Your task to perform on an android device: Search for "usb-c" on target.com, select the first entry, add it to the cart, then select checkout. Image 0: 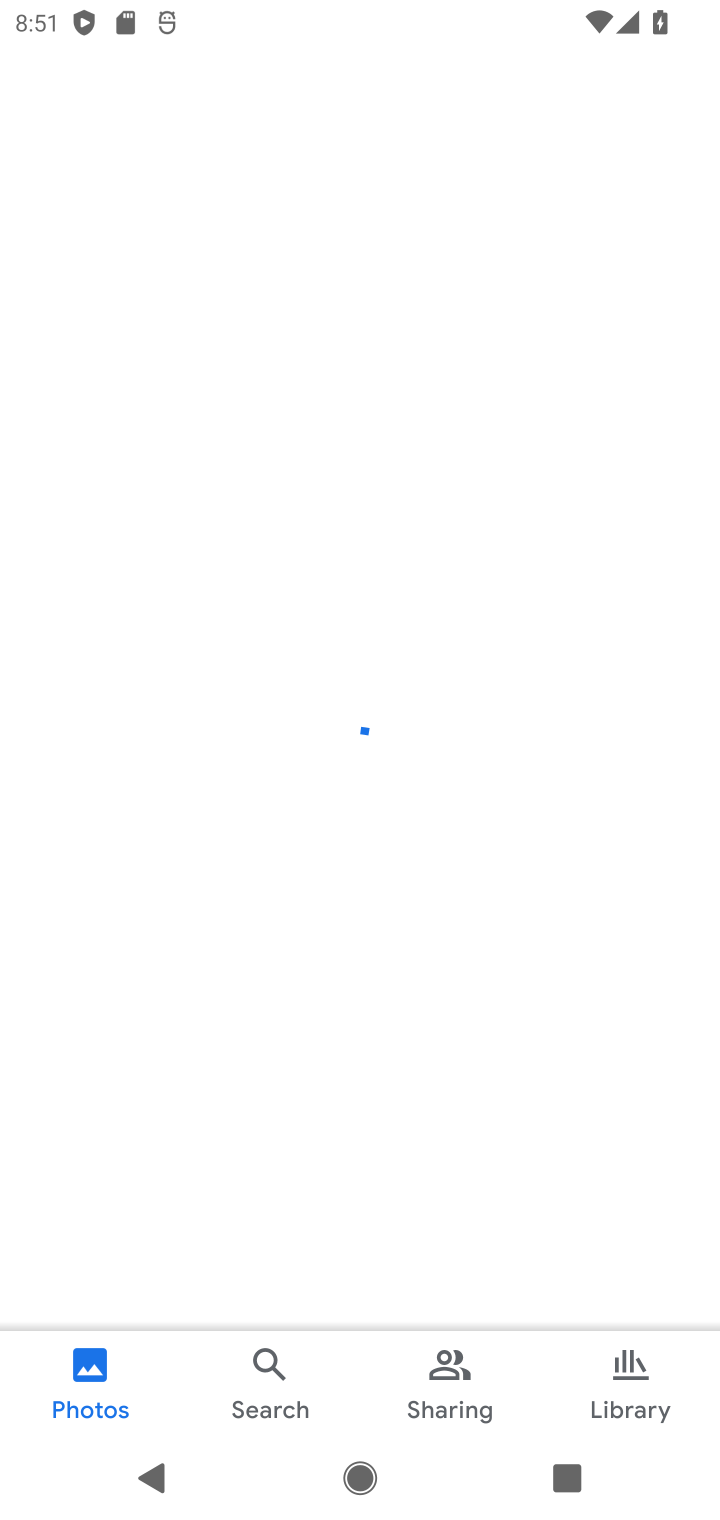
Step 0: press home button
Your task to perform on an android device: Search for "usb-c" on target.com, select the first entry, add it to the cart, then select checkout. Image 1: 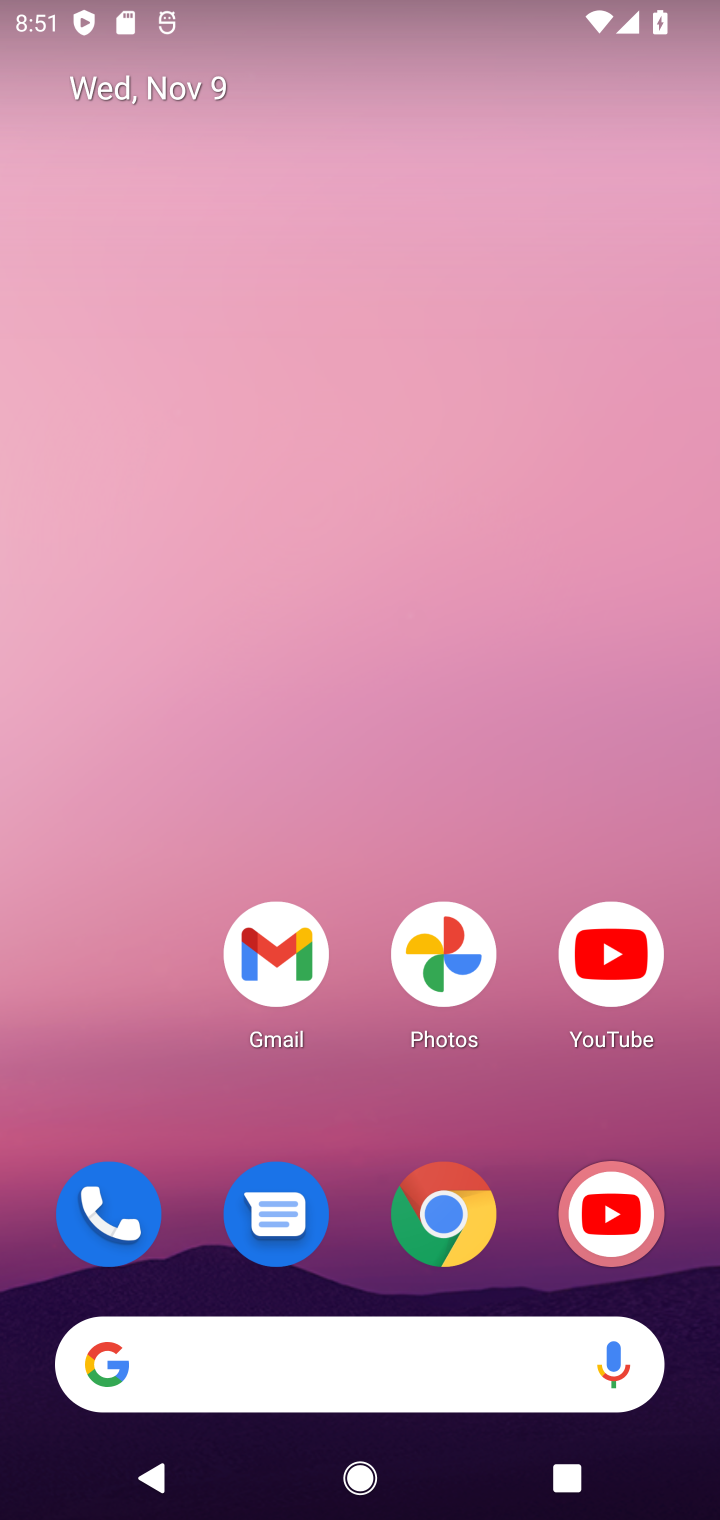
Step 1: click (359, 177)
Your task to perform on an android device: Search for "usb-c" on target.com, select the first entry, add it to the cart, then select checkout. Image 2: 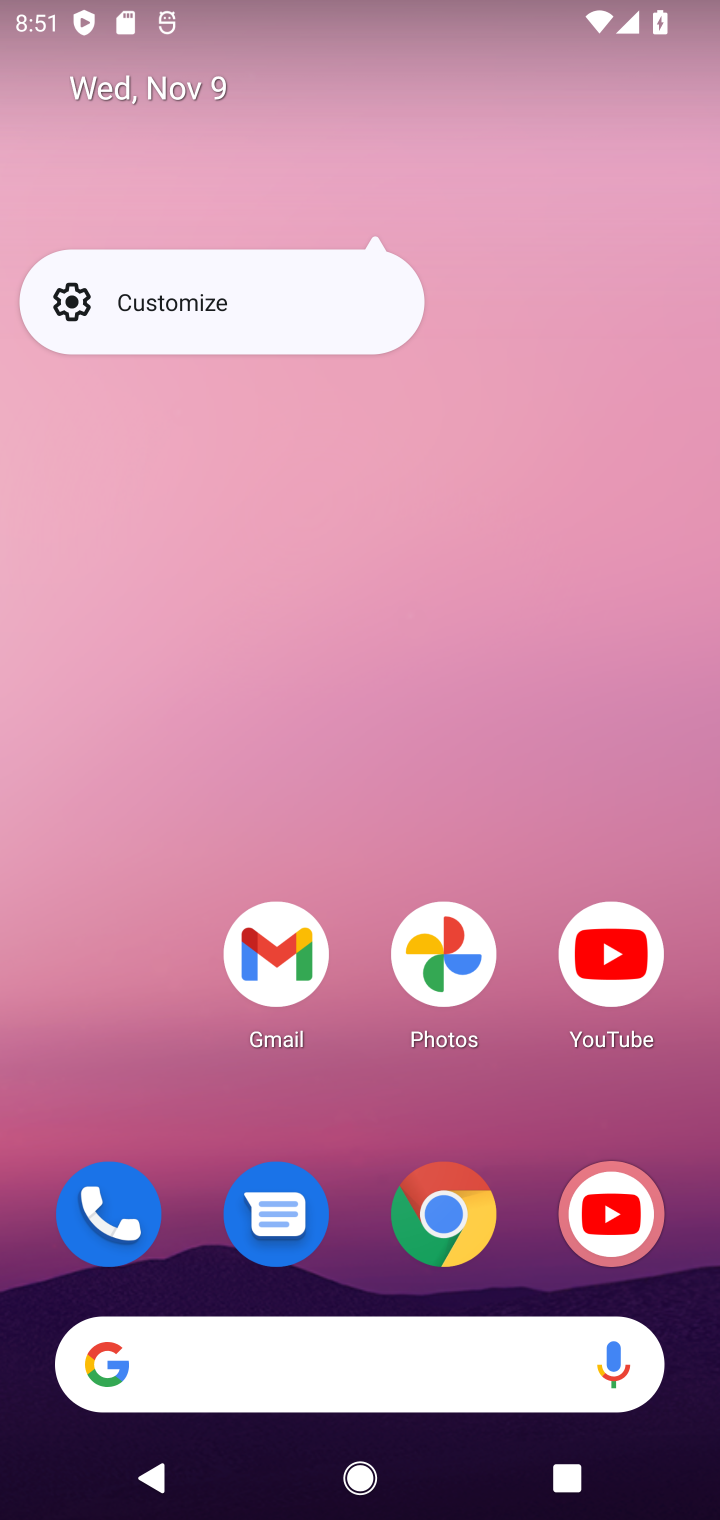
Step 2: drag from (361, 1256) to (434, 107)
Your task to perform on an android device: Search for "usb-c" on target.com, select the first entry, add it to the cart, then select checkout. Image 3: 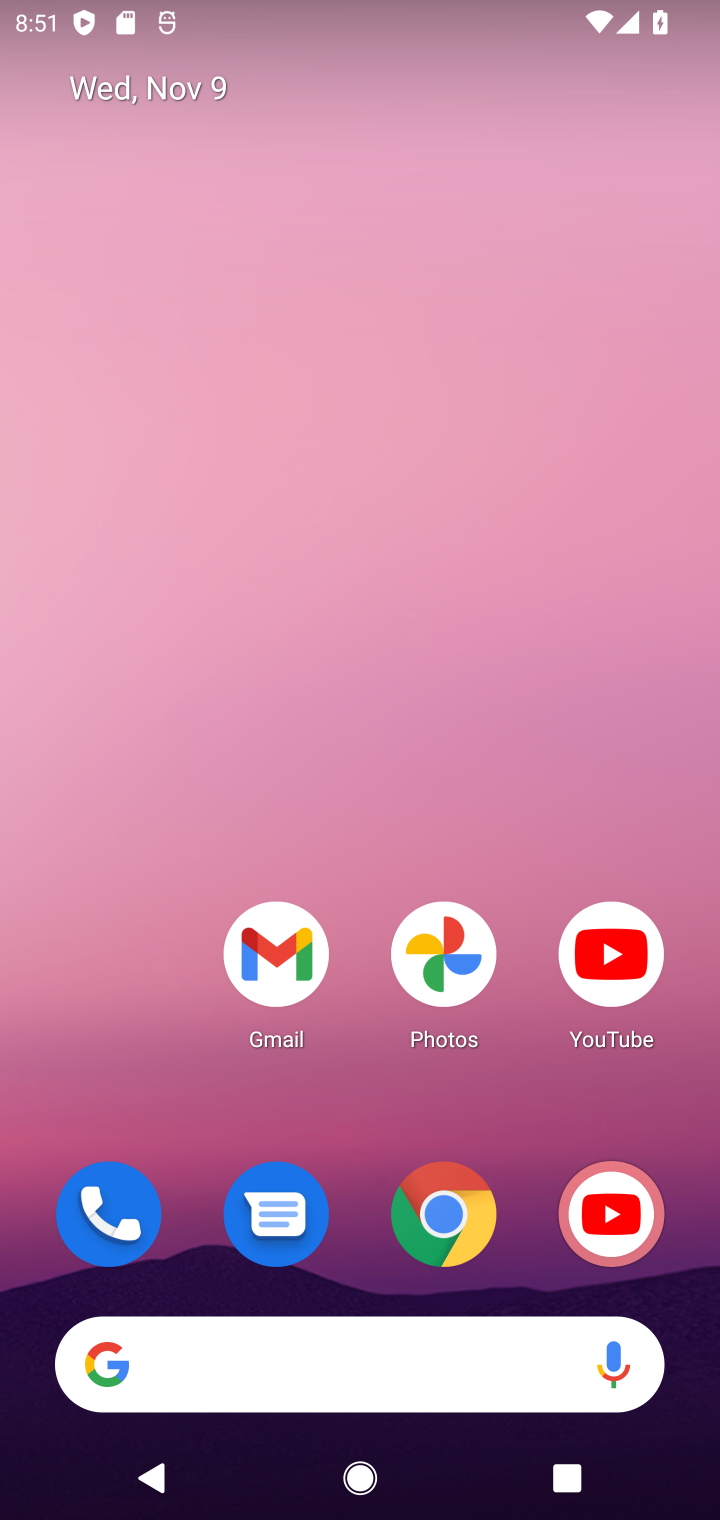
Step 3: drag from (353, 1207) to (378, 337)
Your task to perform on an android device: Search for "usb-c" on target.com, select the first entry, add it to the cart, then select checkout. Image 4: 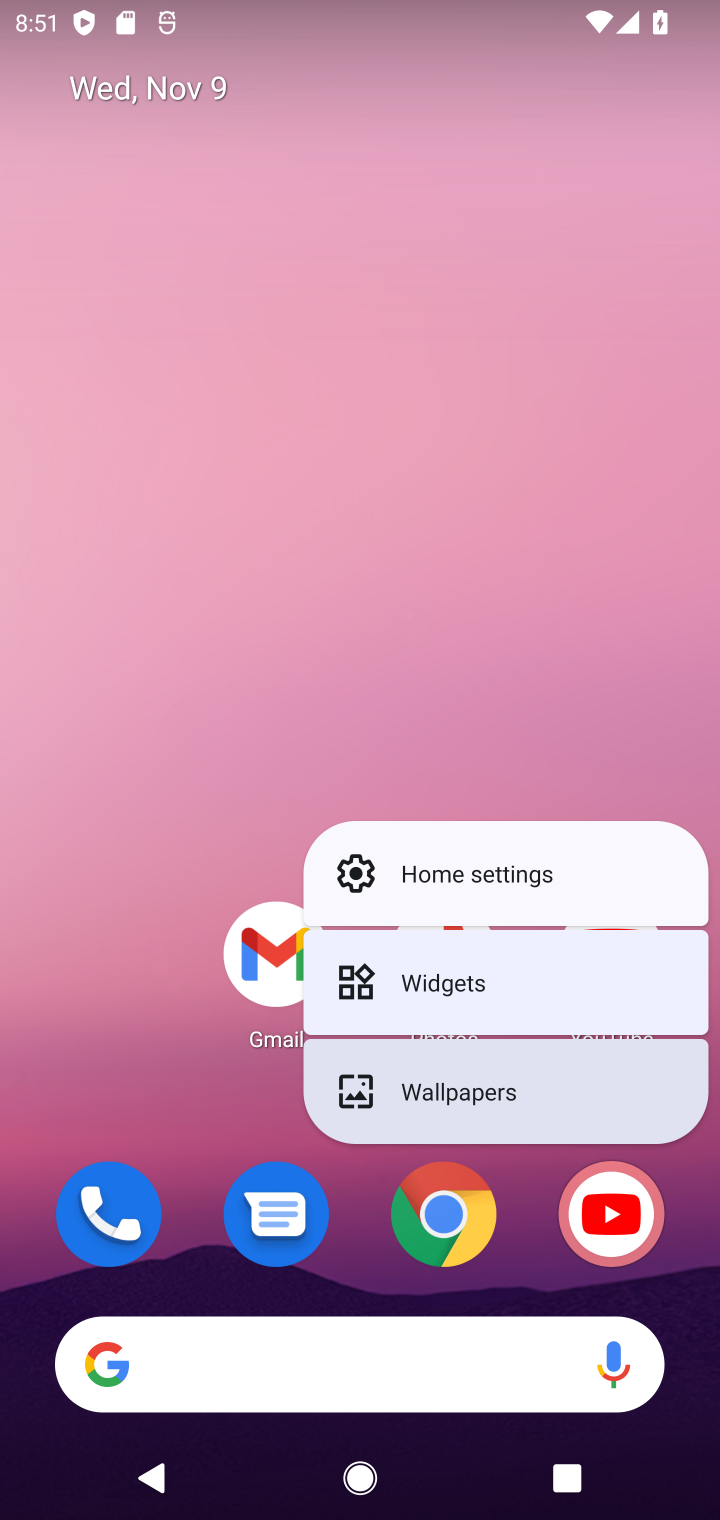
Step 4: click (337, 493)
Your task to perform on an android device: Search for "usb-c" on target.com, select the first entry, add it to the cart, then select checkout. Image 5: 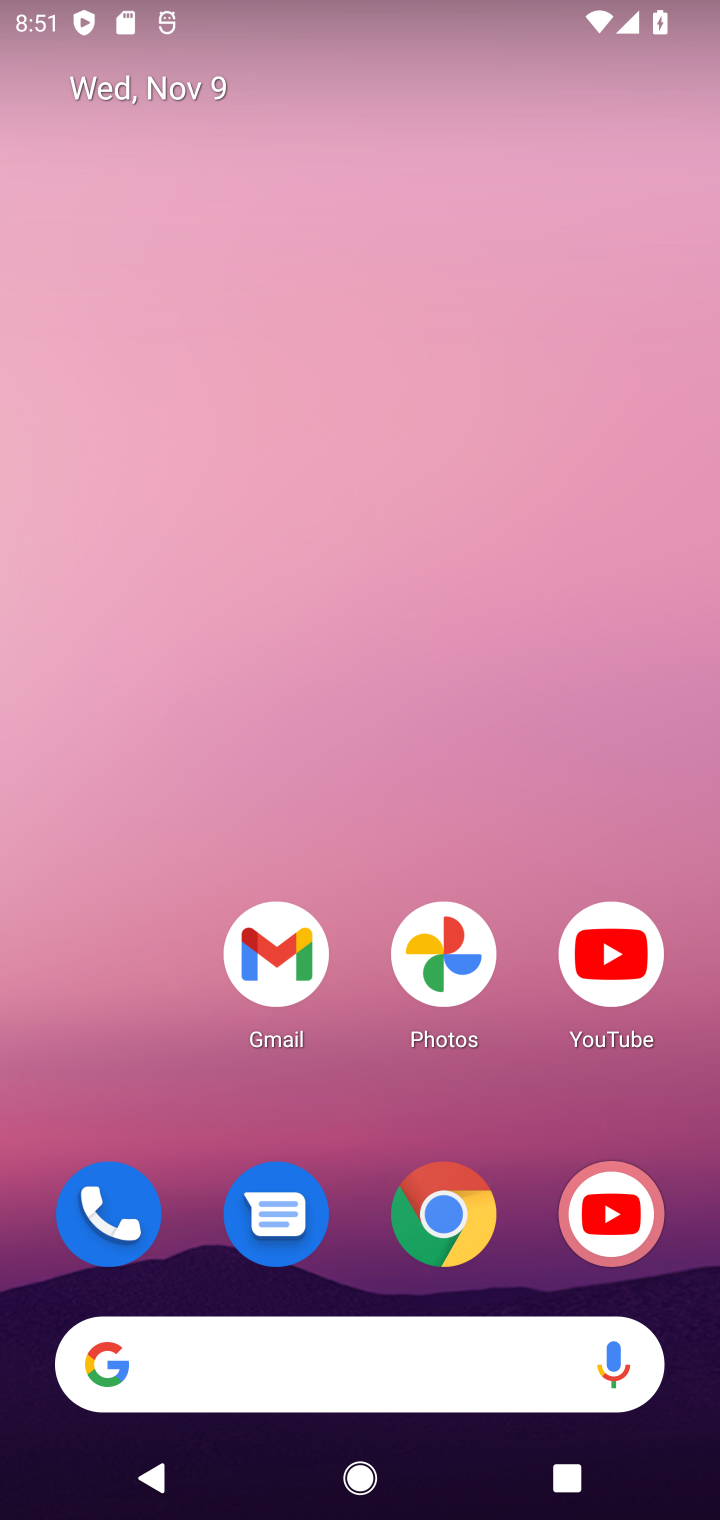
Step 5: drag from (337, 1187) to (382, 124)
Your task to perform on an android device: Search for "usb-c" on target.com, select the first entry, add it to the cart, then select checkout. Image 6: 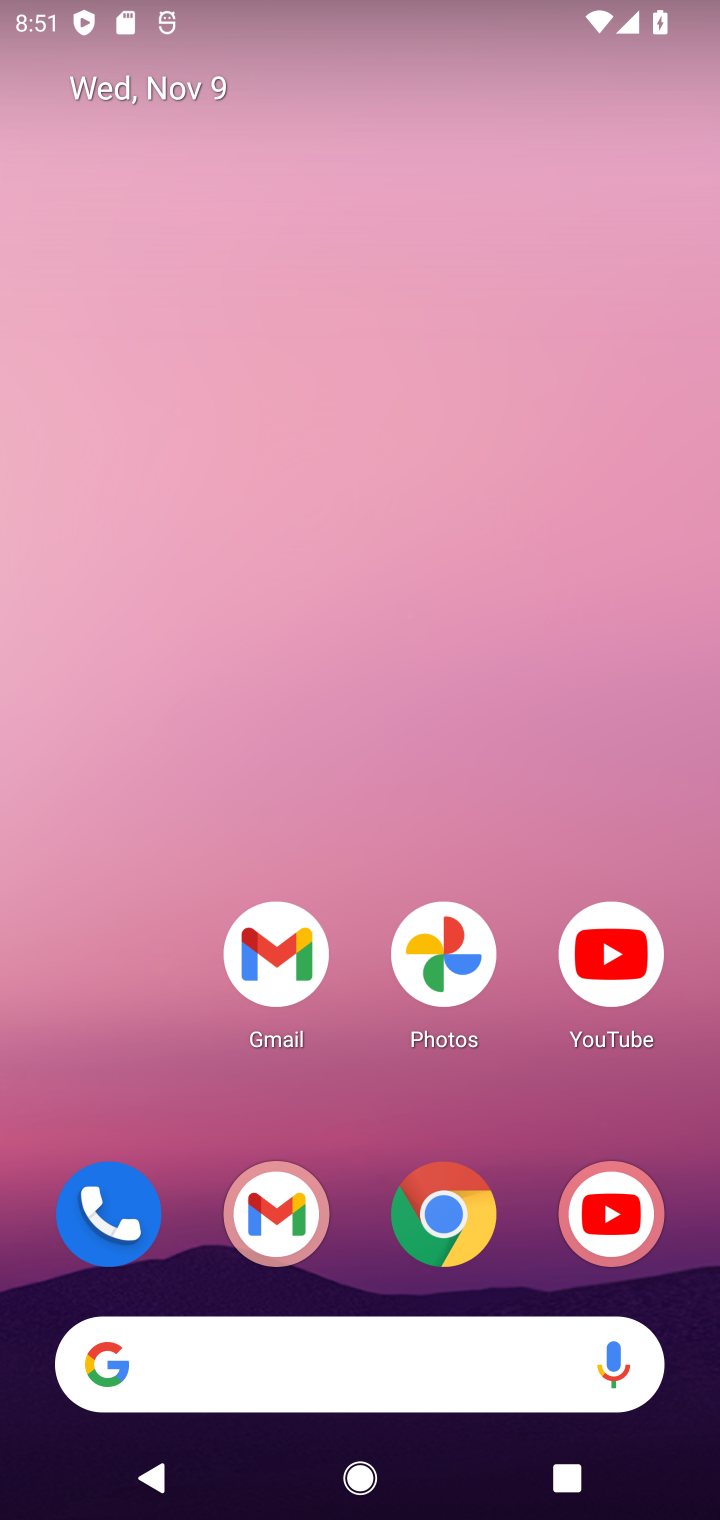
Step 6: drag from (385, 1202) to (349, 294)
Your task to perform on an android device: Search for "usb-c" on target.com, select the first entry, add it to the cart, then select checkout. Image 7: 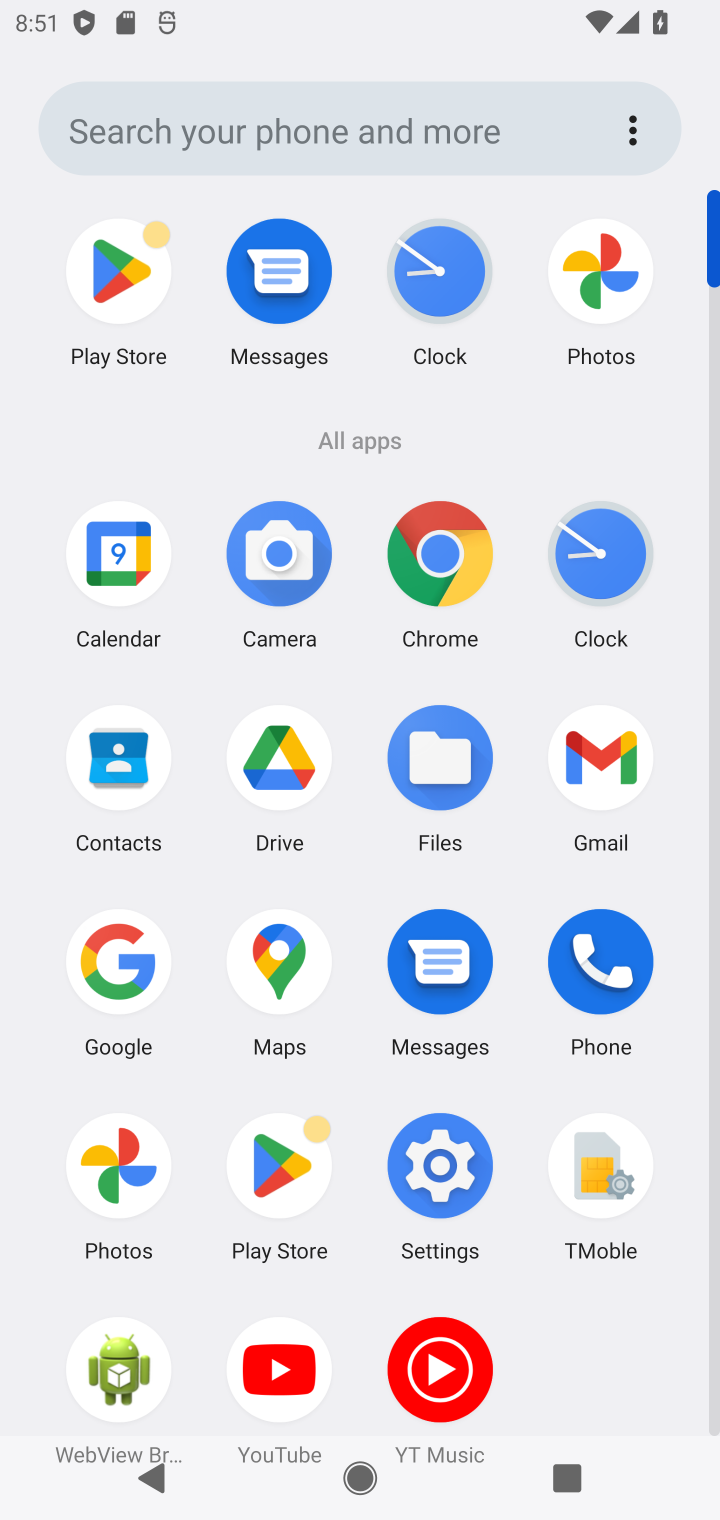
Step 7: click (444, 572)
Your task to perform on an android device: Search for "usb-c" on target.com, select the first entry, add it to the cart, then select checkout. Image 8: 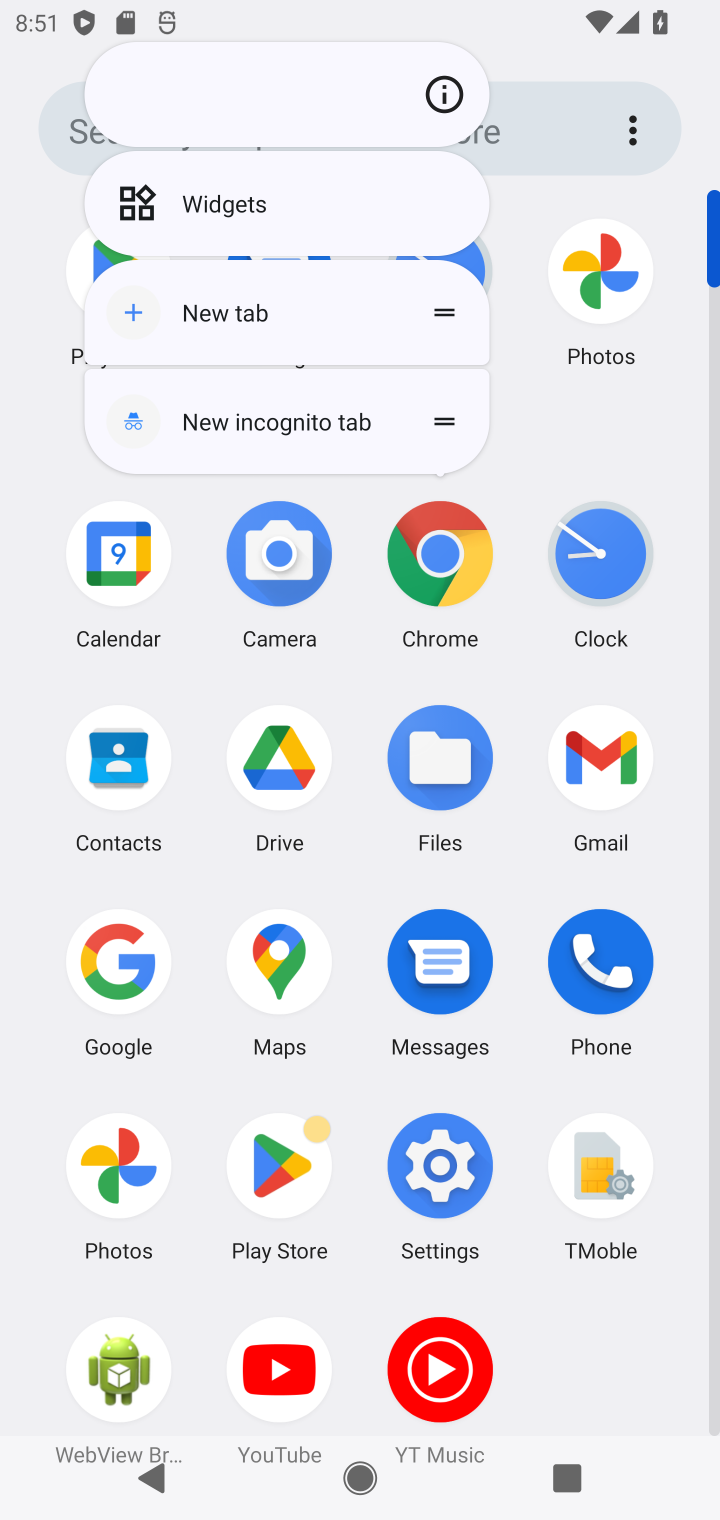
Step 8: click (436, 551)
Your task to perform on an android device: Search for "usb-c" on target.com, select the first entry, add it to the cart, then select checkout. Image 9: 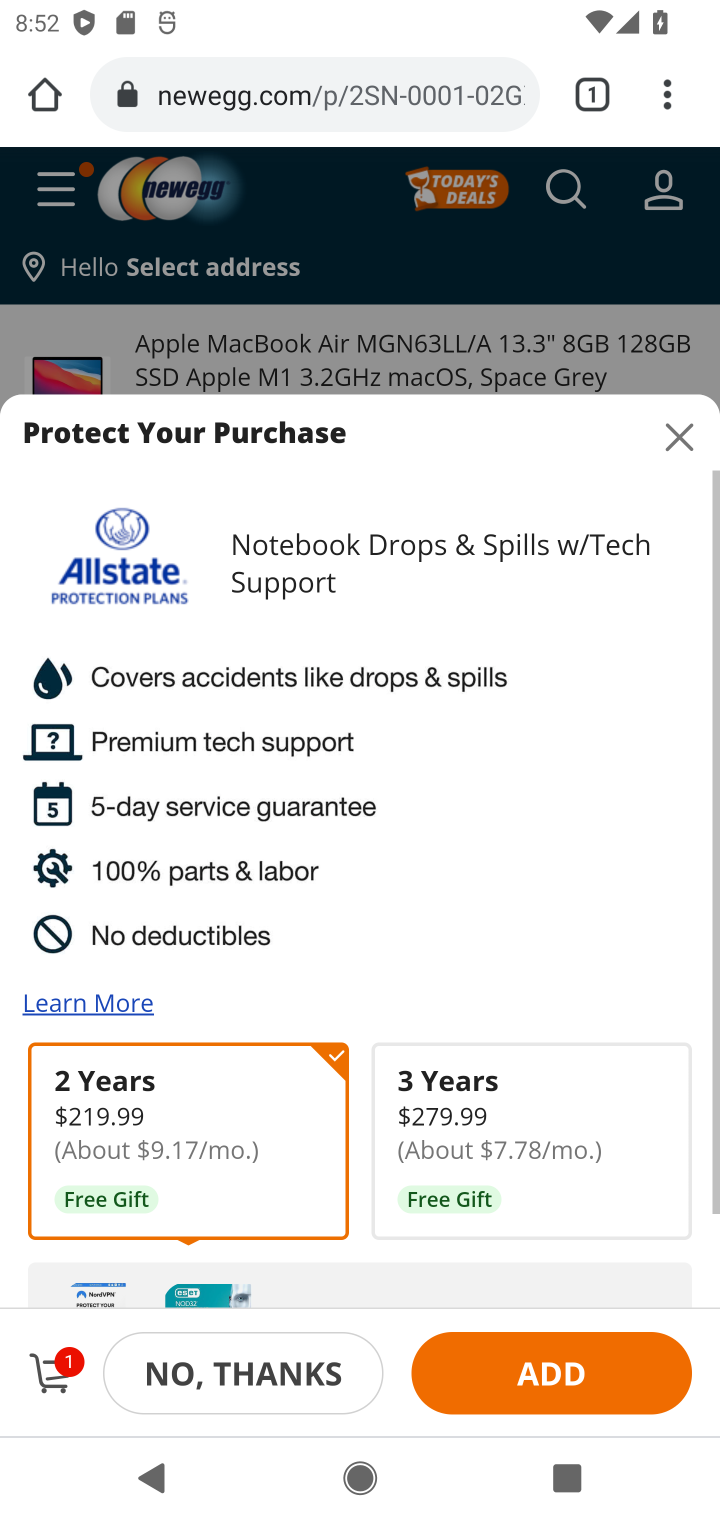
Step 9: click (332, 100)
Your task to perform on an android device: Search for "usb-c" on target.com, select the first entry, add it to the cart, then select checkout. Image 10: 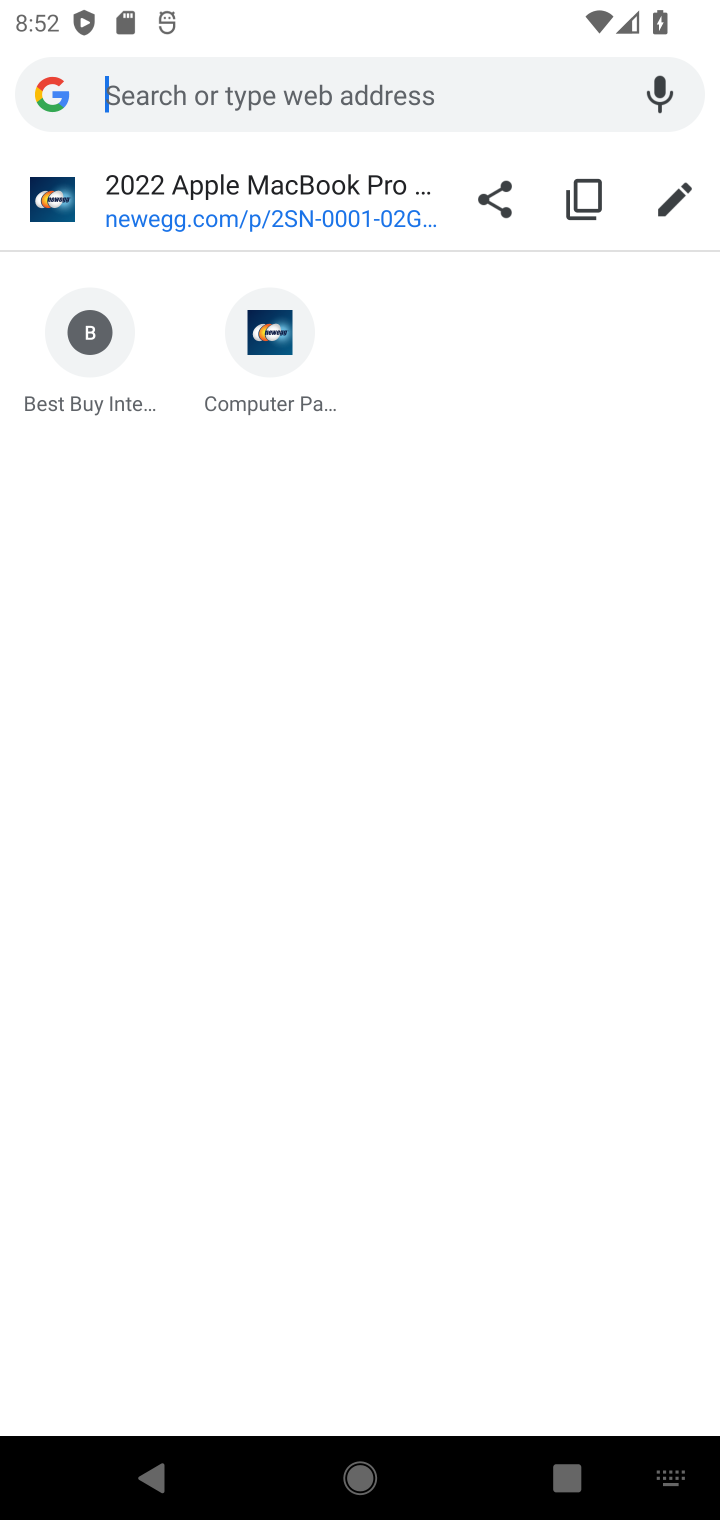
Step 10: type "target.com"
Your task to perform on an android device: Search for "usb-c" on target.com, select the first entry, add it to the cart, then select checkout. Image 11: 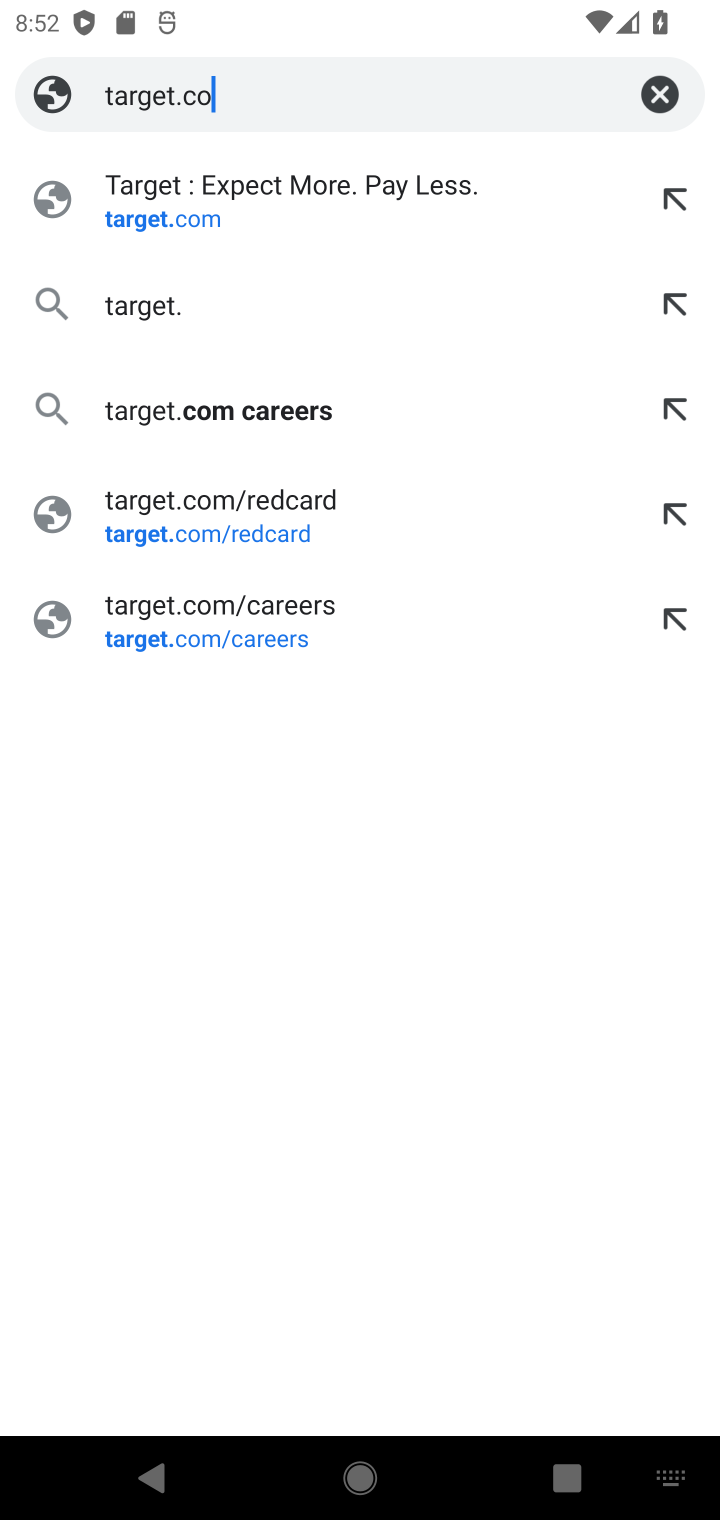
Step 11: press enter
Your task to perform on an android device: Search for "usb-c" on target.com, select the first entry, add it to the cart, then select checkout. Image 12: 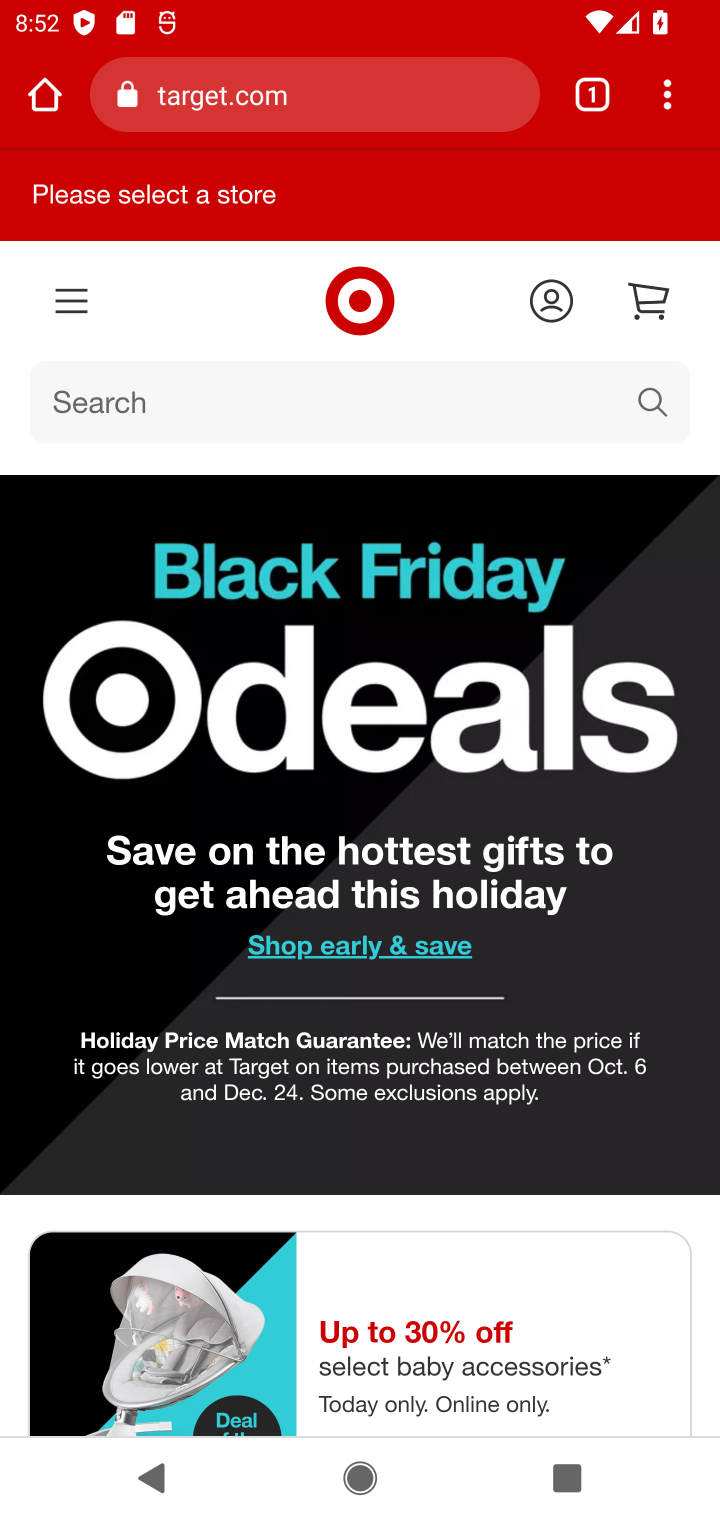
Step 12: click (325, 399)
Your task to perform on an android device: Search for "usb-c" on target.com, select the first entry, add it to the cart, then select checkout. Image 13: 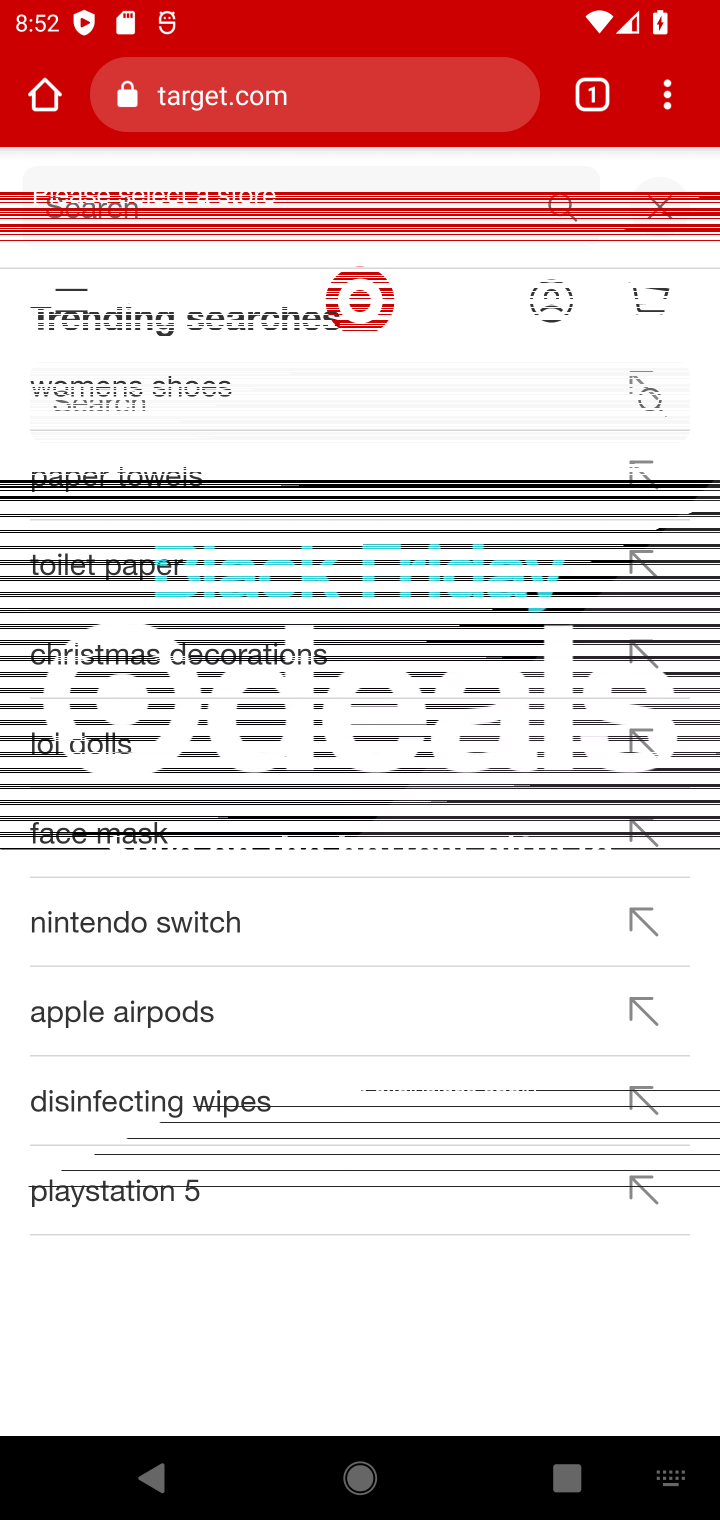
Step 13: type "usb-c"
Your task to perform on an android device: Search for "usb-c" on target.com, select the first entry, add it to the cart, then select checkout. Image 14: 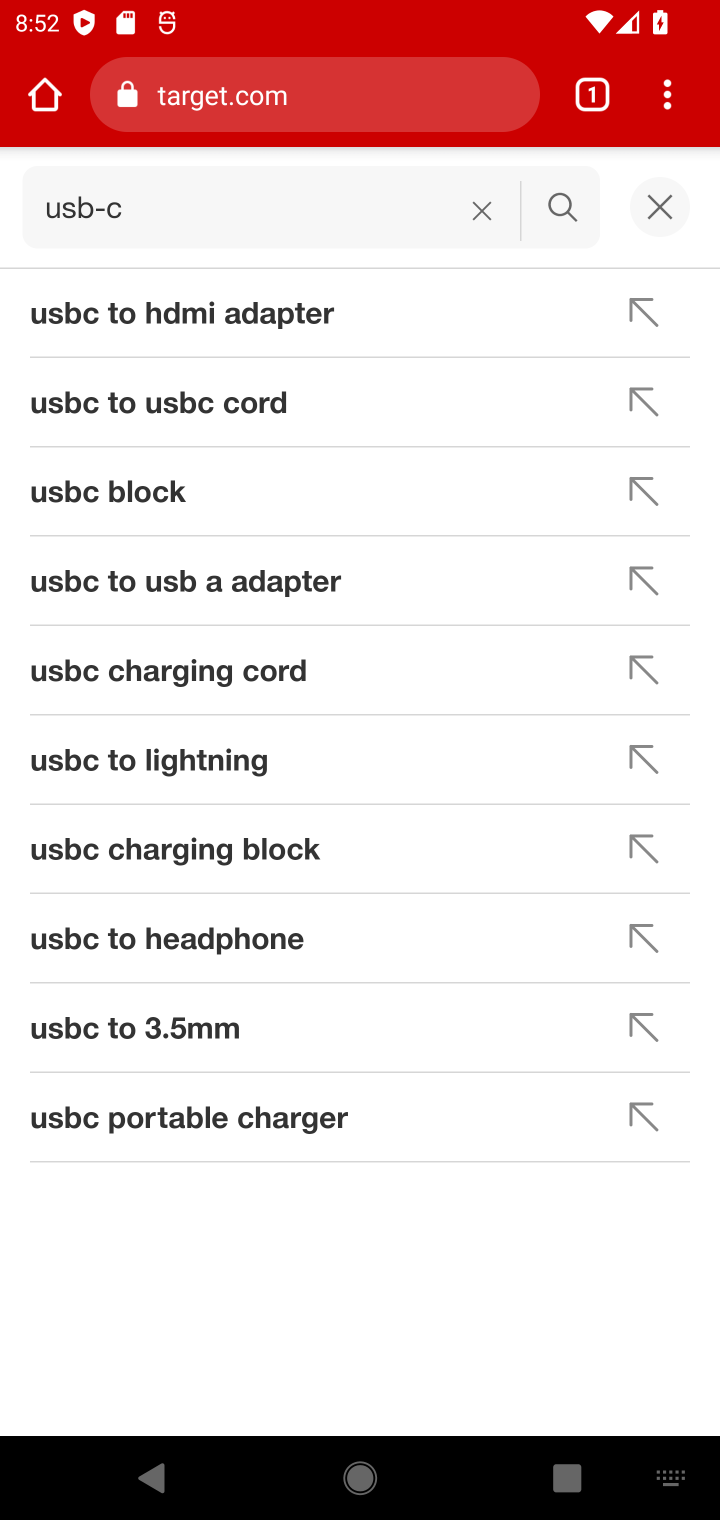
Step 14: press enter
Your task to perform on an android device: Search for "usb-c" on target.com, select the first entry, add it to the cart, then select checkout. Image 15: 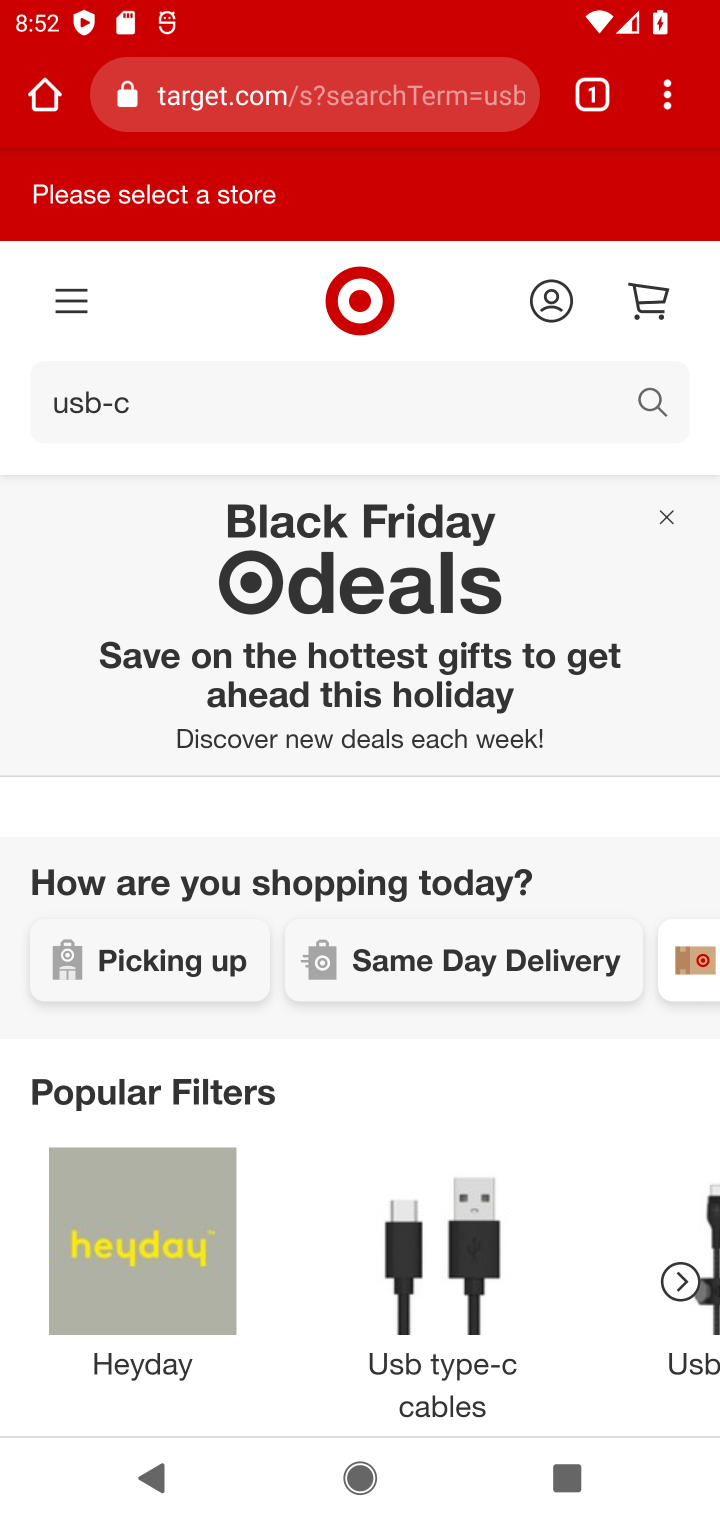
Step 15: drag from (333, 1038) to (390, 501)
Your task to perform on an android device: Search for "usb-c" on target.com, select the first entry, add it to the cart, then select checkout. Image 16: 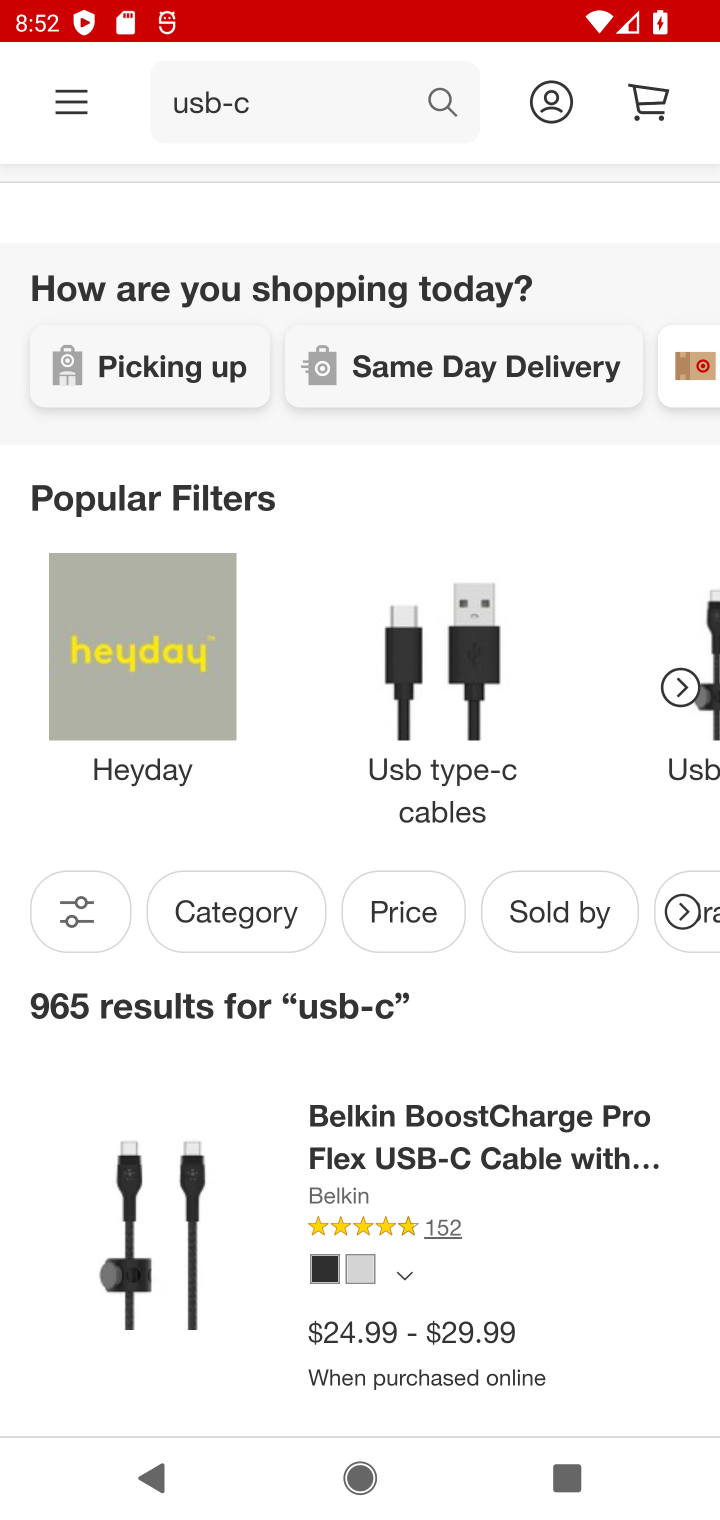
Step 16: click (460, 1164)
Your task to perform on an android device: Search for "usb-c" on target.com, select the first entry, add it to the cart, then select checkout. Image 17: 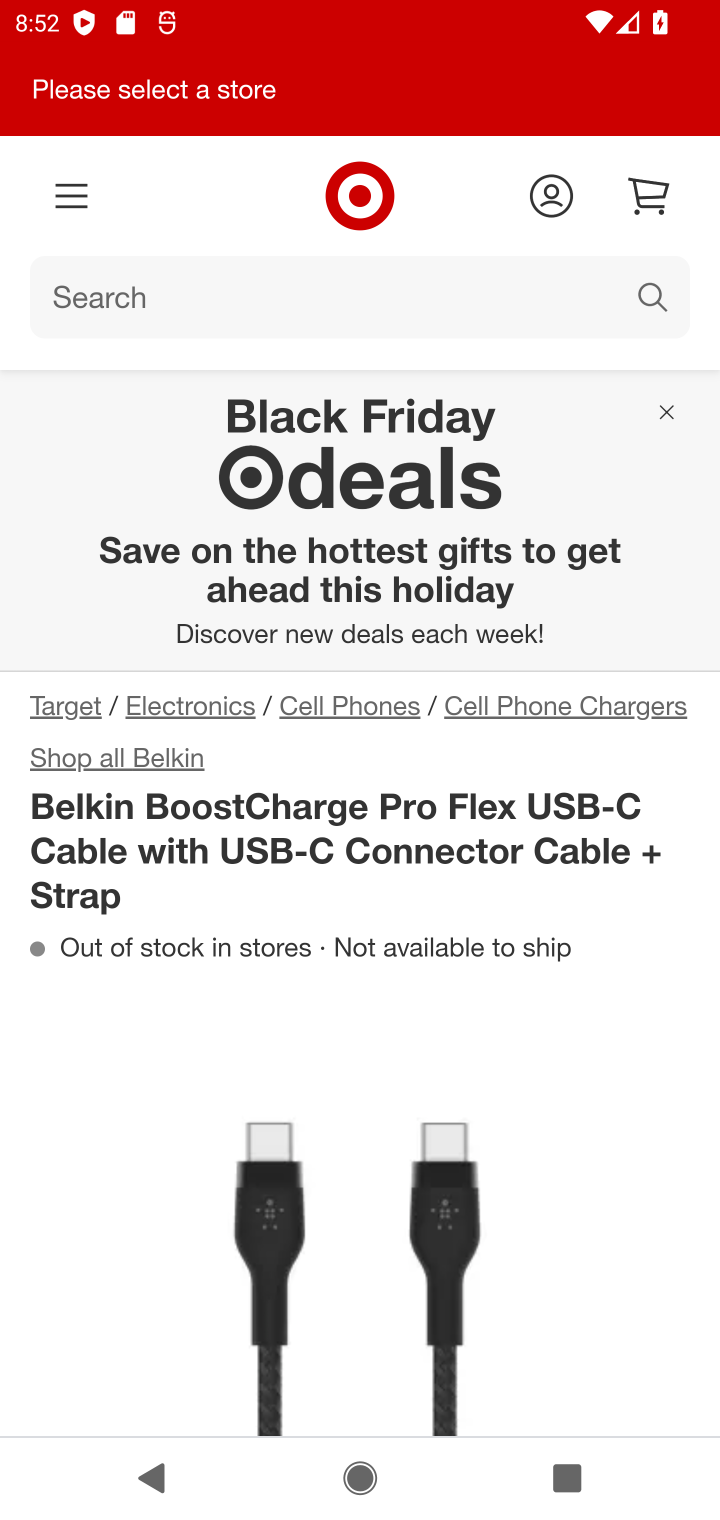
Step 17: drag from (455, 1291) to (306, 291)
Your task to perform on an android device: Search for "usb-c" on target.com, select the first entry, add it to the cart, then select checkout. Image 18: 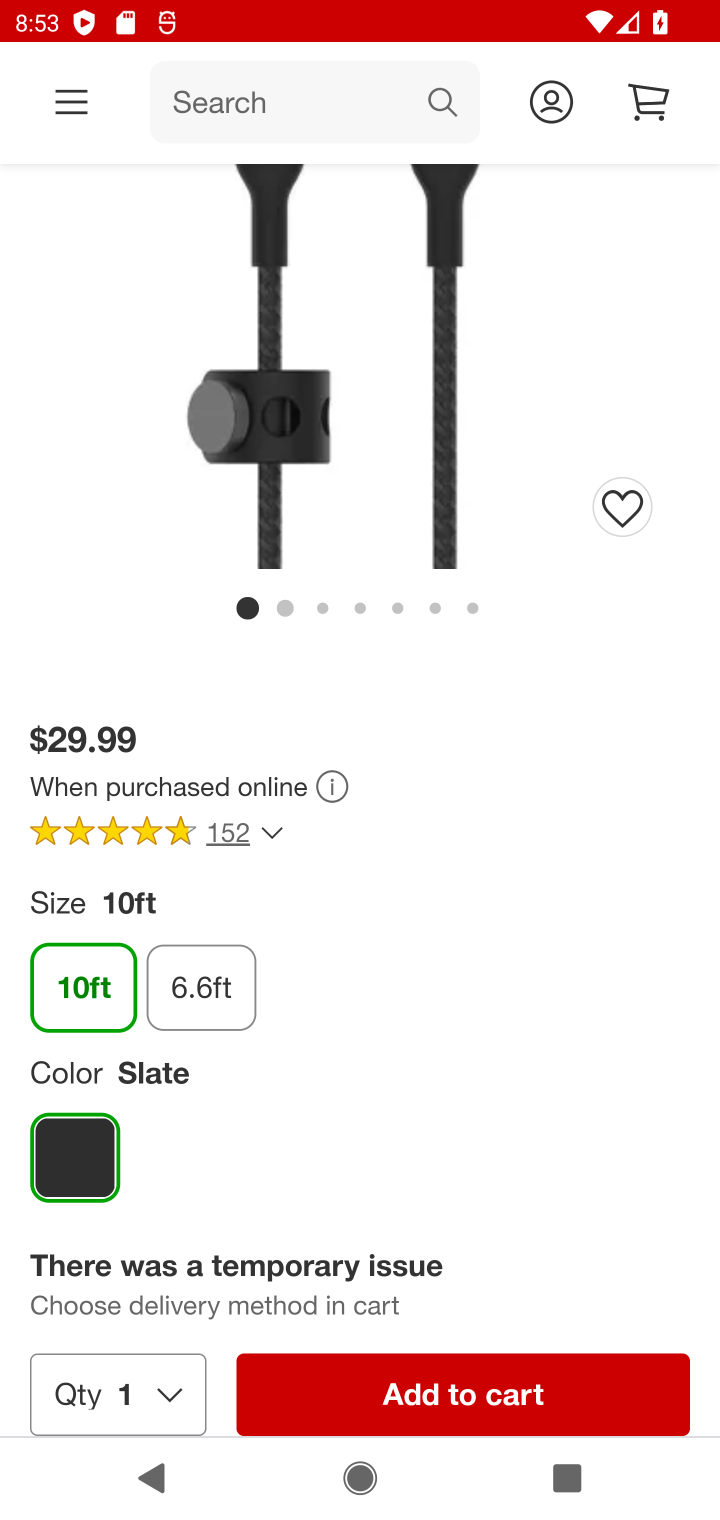
Step 18: click (477, 1402)
Your task to perform on an android device: Search for "usb-c" on target.com, select the first entry, add it to the cart, then select checkout. Image 19: 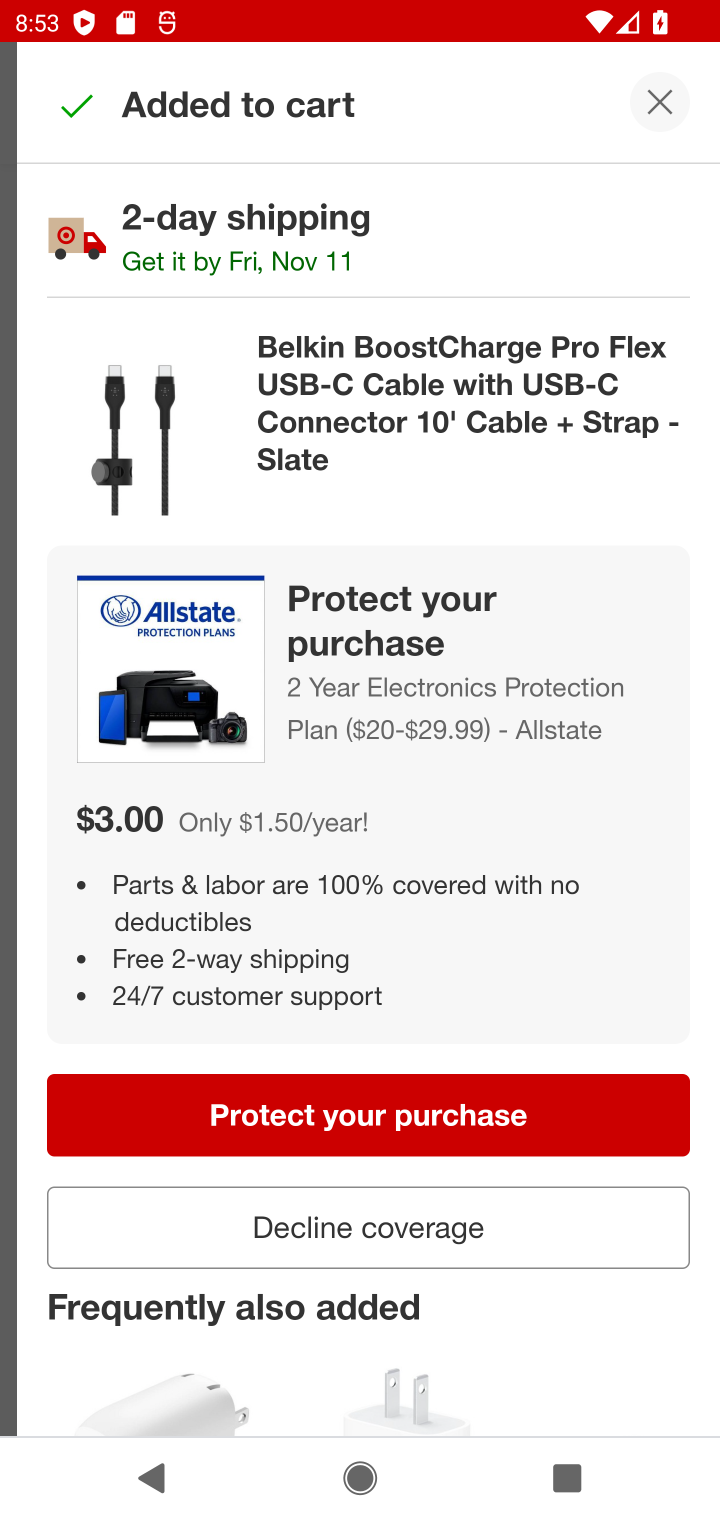
Step 19: task complete